Your task to perform on an android device: Open Google Maps Image 0: 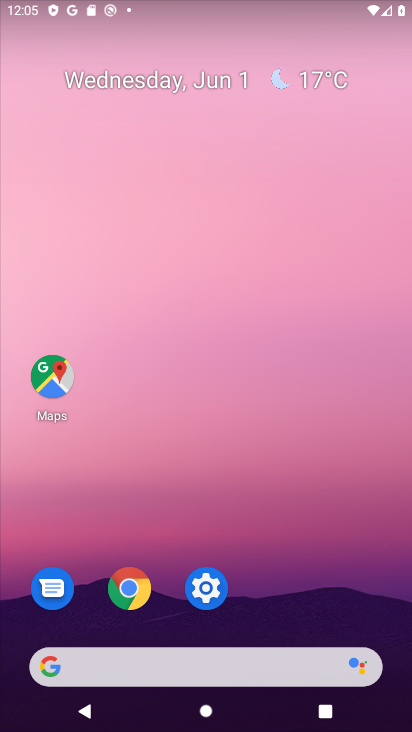
Step 0: press home button
Your task to perform on an android device: Open Google Maps Image 1: 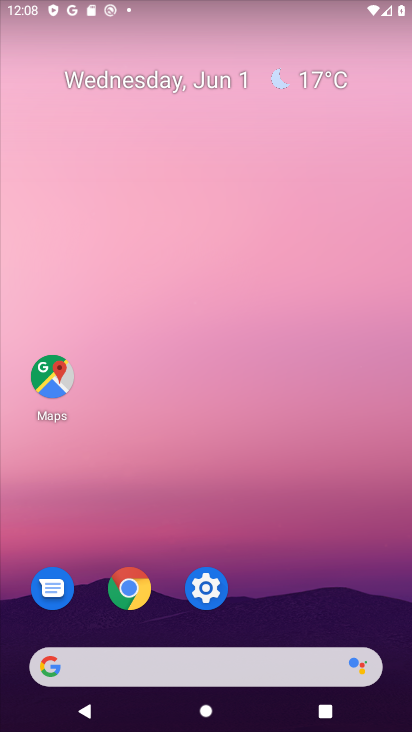
Step 1: click (61, 386)
Your task to perform on an android device: Open Google Maps Image 2: 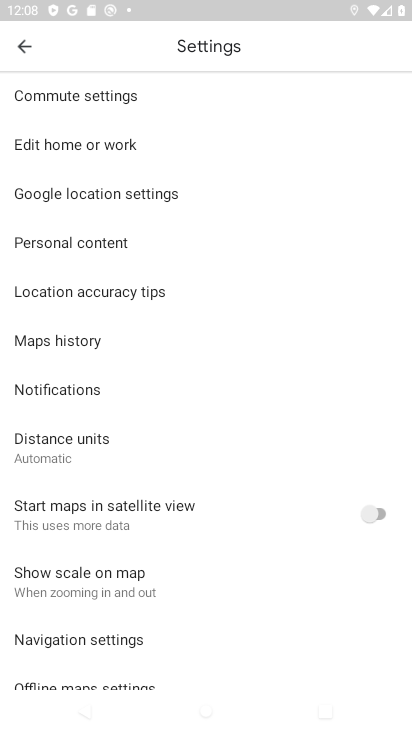
Step 2: click (14, 42)
Your task to perform on an android device: Open Google Maps Image 3: 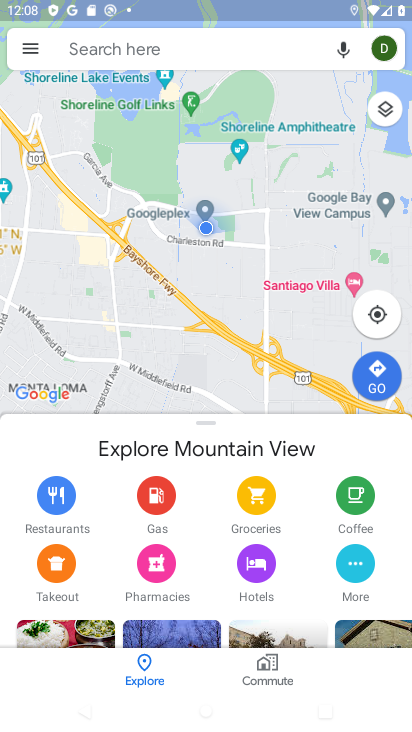
Step 3: task complete